Your task to perform on an android device: Open wifi settings Image 0: 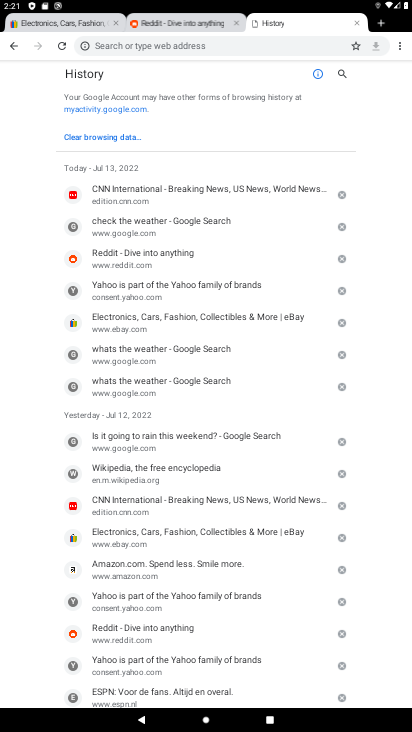
Step 0: press home button
Your task to perform on an android device: Open wifi settings Image 1: 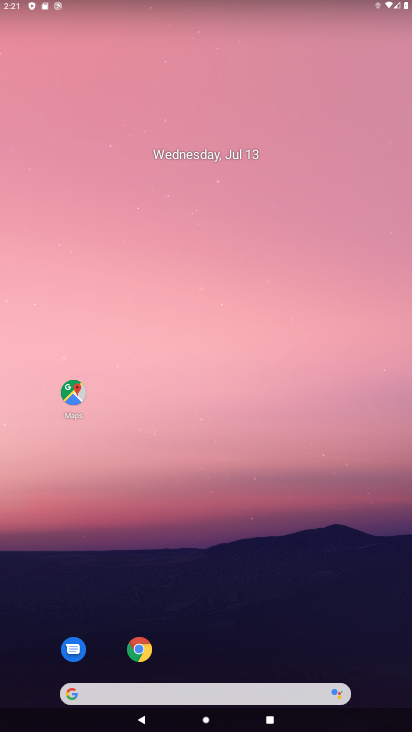
Step 1: drag from (252, 550) to (195, 238)
Your task to perform on an android device: Open wifi settings Image 2: 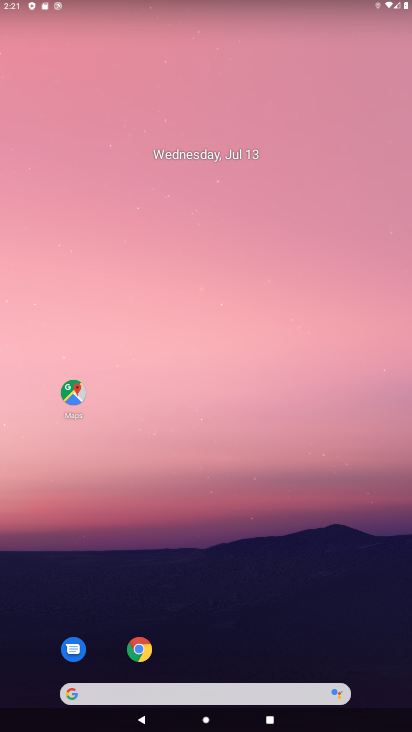
Step 2: drag from (215, 566) to (198, 144)
Your task to perform on an android device: Open wifi settings Image 3: 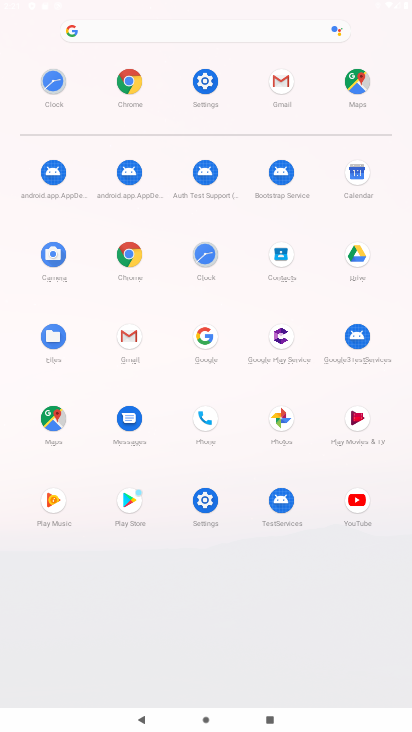
Step 3: click (203, 81)
Your task to perform on an android device: Open wifi settings Image 4: 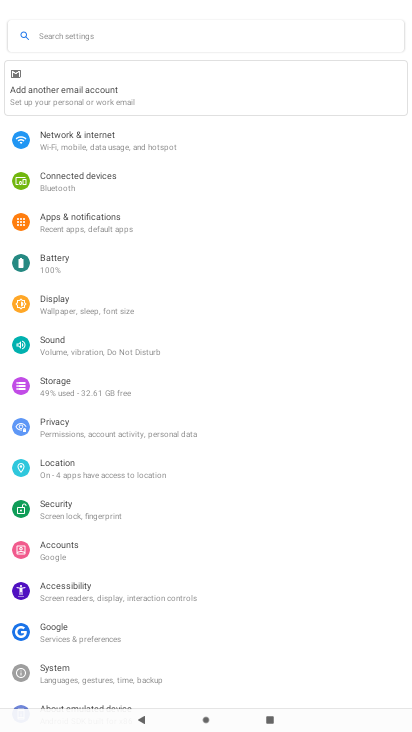
Step 4: click (86, 136)
Your task to perform on an android device: Open wifi settings Image 5: 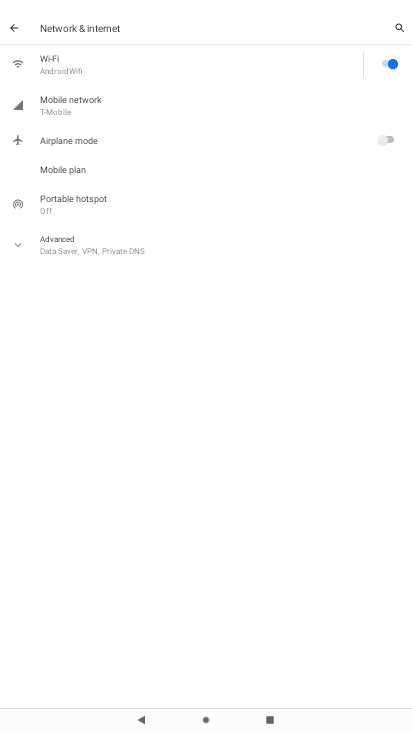
Step 5: click (103, 60)
Your task to perform on an android device: Open wifi settings Image 6: 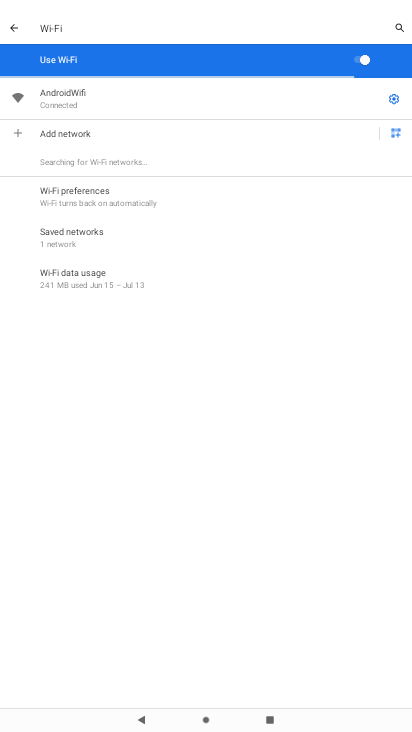
Step 6: task complete